Your task to perform on an android device: change timer sound Image 0: 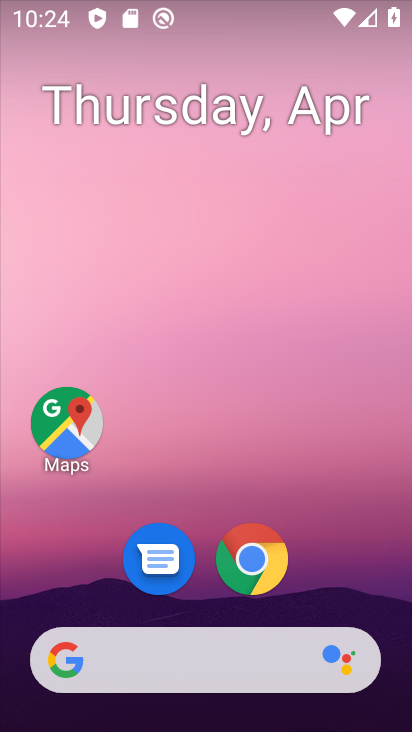
Step 0: drag from (237, 670) to (313, 123)
Your task to perform on an android device: change timer sound Image 1: 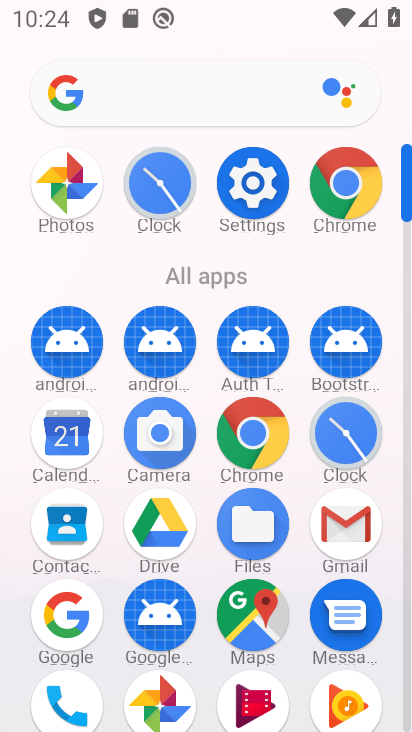
Step 1: click (352, 429)
Your task to perform on an android device: change timer sound Image 2: 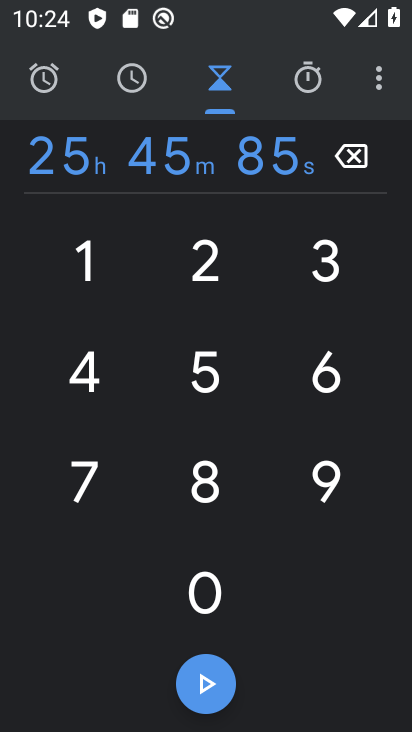
Step 2: click (377, 78)
Your task to perform on an android device: change timer sound Image 3: 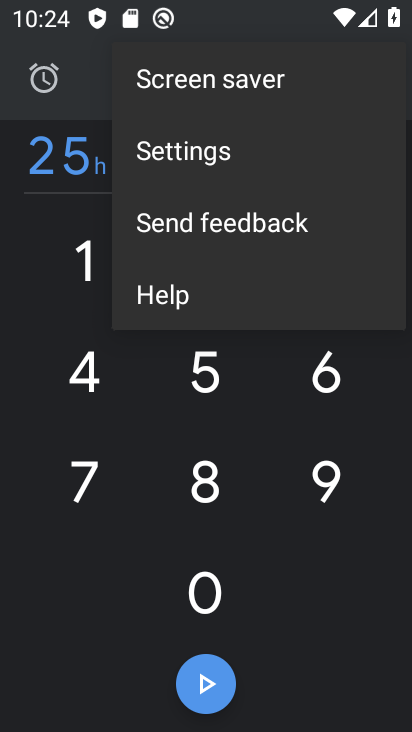
Step 3: click (246, 149)
Your task to perform on an android device: change timer sound Image 4: 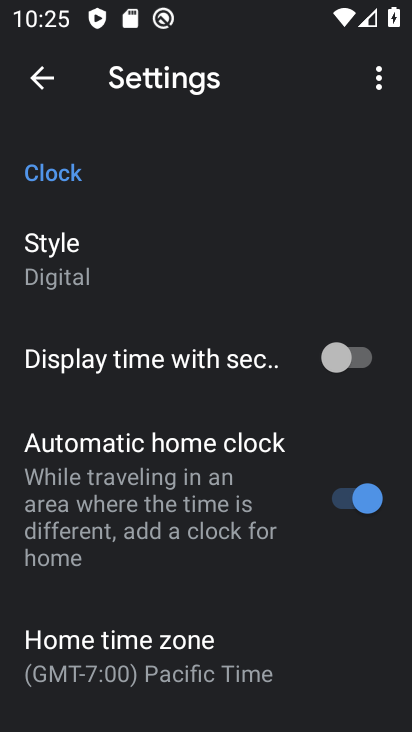
Step 4: drag from (139, 587) to (154, 373)
Your task to perform on an android device: change timer sound Image 5: 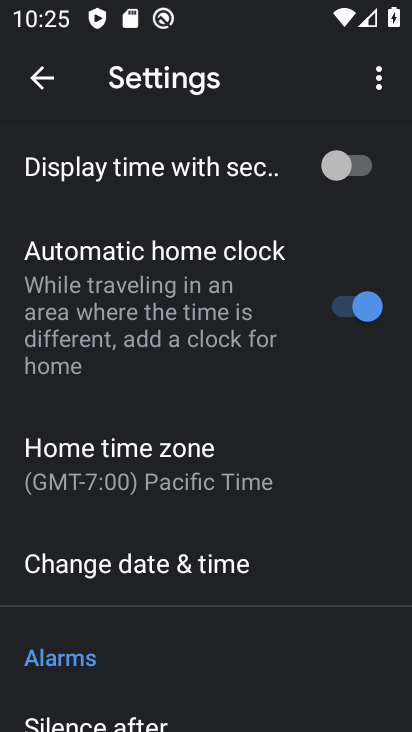
Step 5: drag from (76, 559) to (148, 260)
Your task to perform on an android device: change timer sound Image 6: 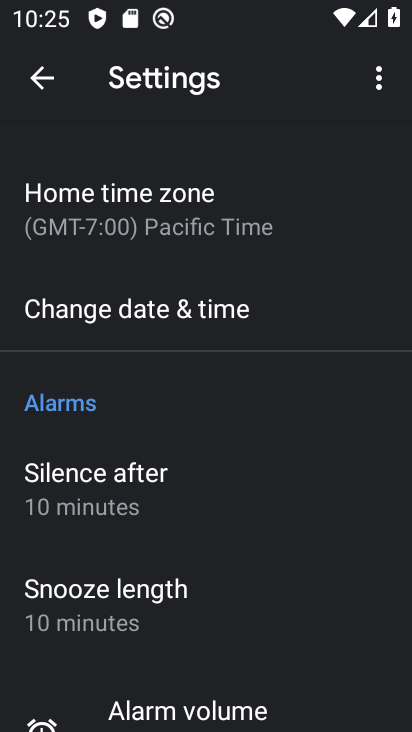
Step 6: drag from (160, 492) to (199, 259)
Your task to perform on an android device: change timer sound Image 7: 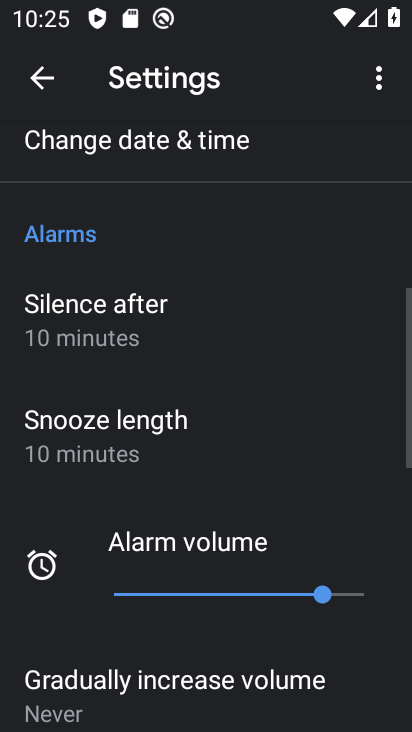
Step 7: drag from (172, 539) to (218, 304)
Your task to perform on an android device: change timer sound Image 8: 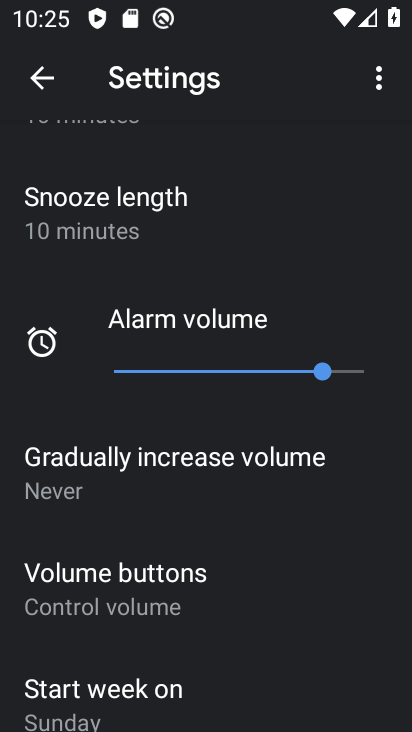
Step 8: drag from (180, 641) to (232, 366)
Your task to perform on an android device: change timer sound Image 9: 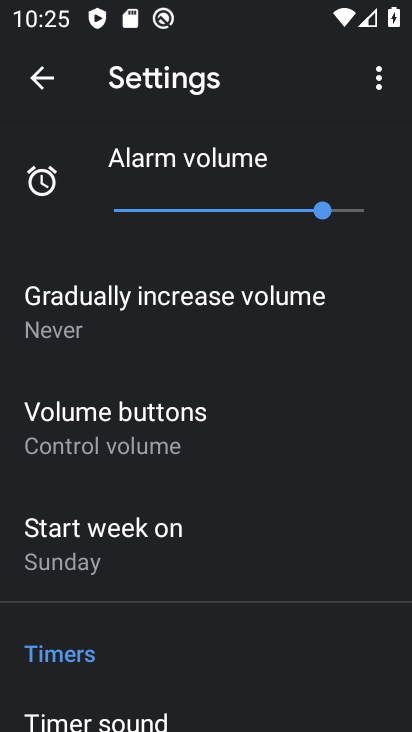
Step 9: click (144, 688)
Your task to perform on an android device: change timer sound Image 10: 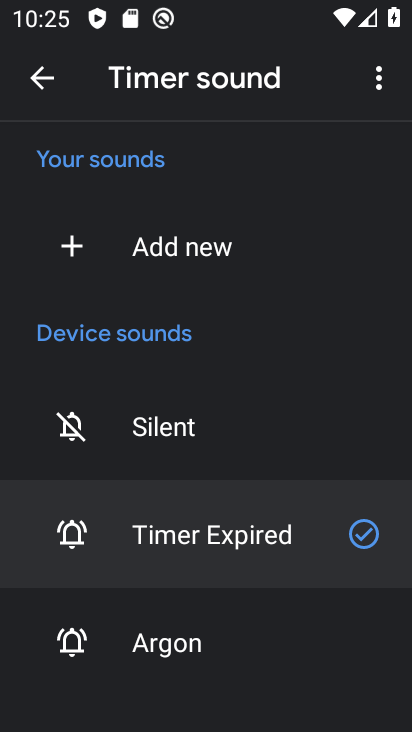
Step 10: click (206, 640)
Your task to perform on an android device: change timer sound Image 11: 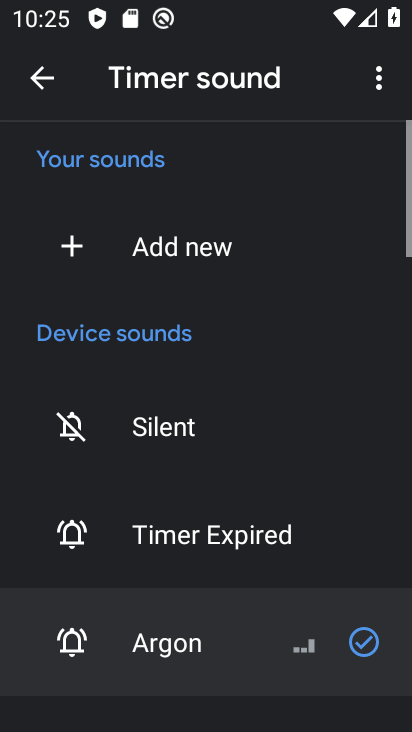
Step 11: task complete